Your task to perform on an android device: Turn off the flashlight Image 0: 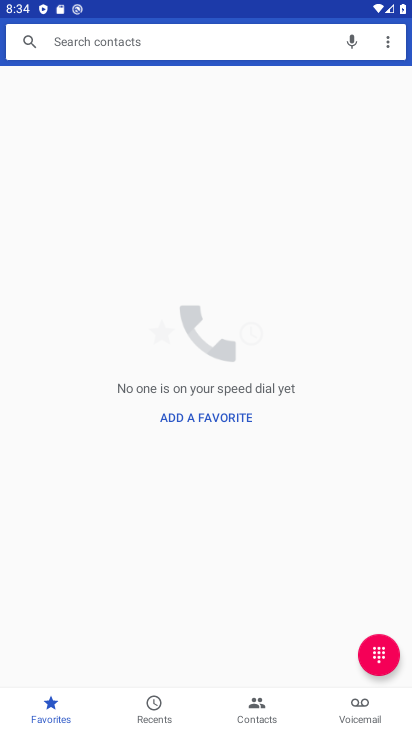
Step 0: press home button
Your task to perform on an android device: Turn off the flashlight Image 1: 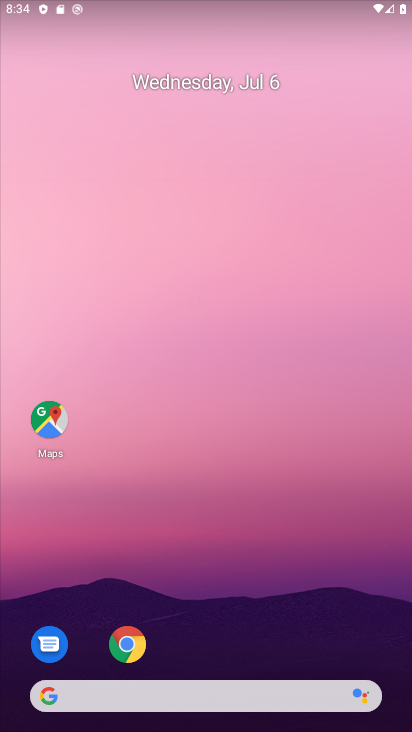
Step 1: drag from (203, 663) to (107, 50)
Your task to perform on an android device: Turn off the flashlight Image 2: 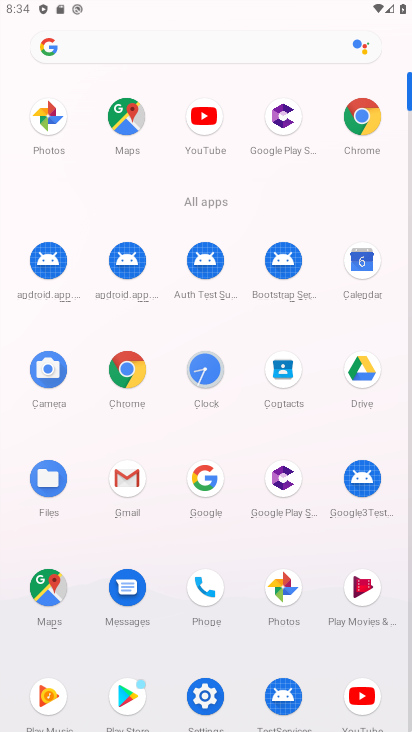
Step 2: click (212, 695)
Your task to perform on an android device: Turn off the flashlight Image 3: 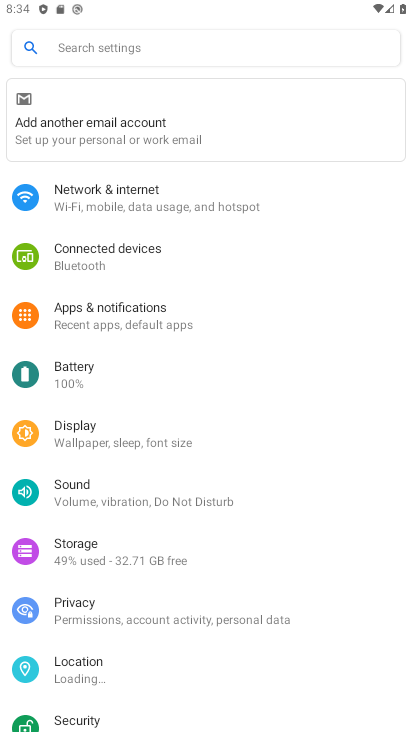
Step 3: task complete